Your task to perform on an android device: What's the weather going to be tomorrow? Image 0: 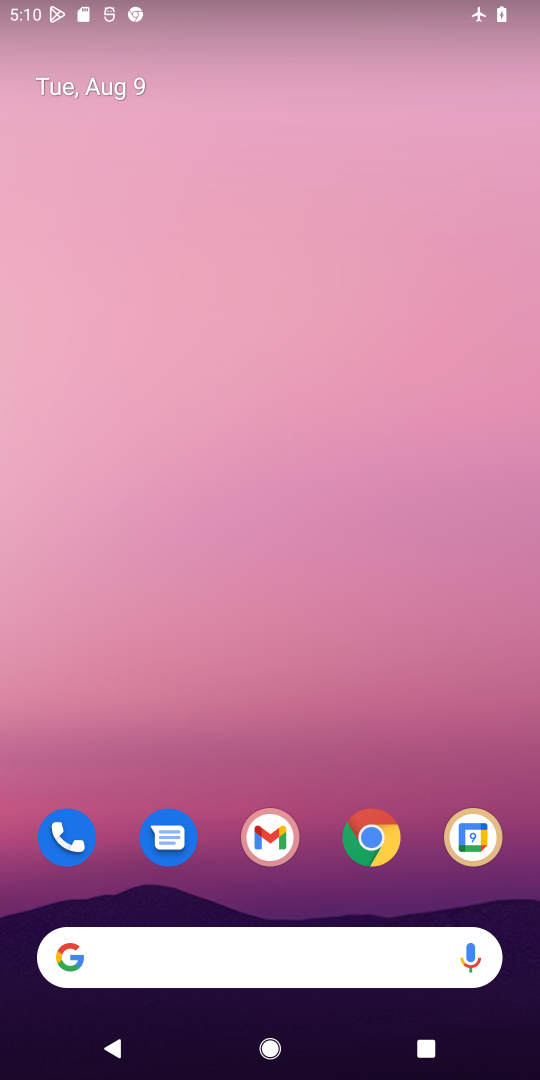
Step 0: drag from (254, 919) to (370, 292)
Your task to perform on an android device: What's the weather going to be tomorrow? Image 1: 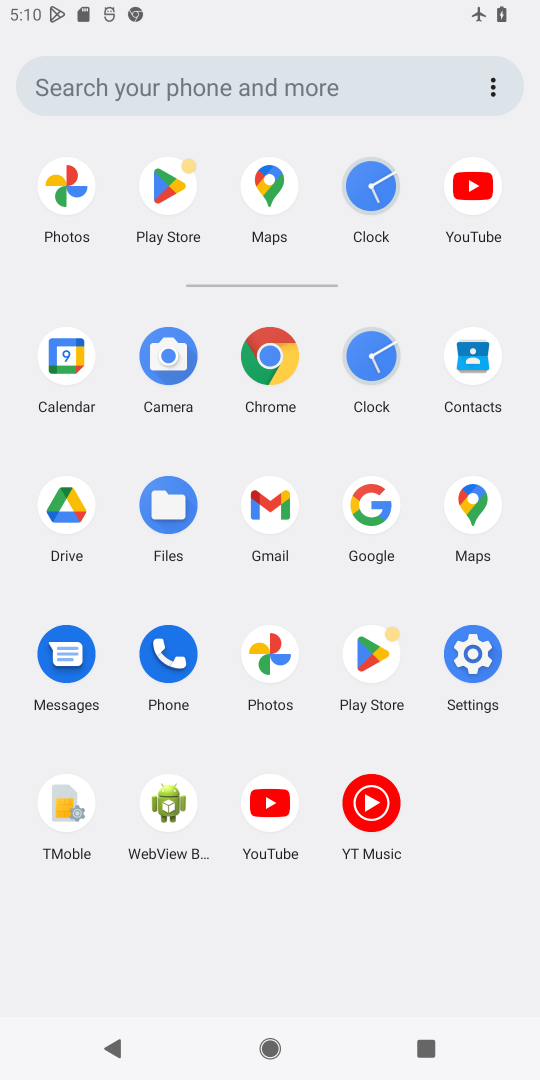
Step 1: click (254, 359)
Your task to perform on an android device: What's the weather going to be tomorrow? Image 2: 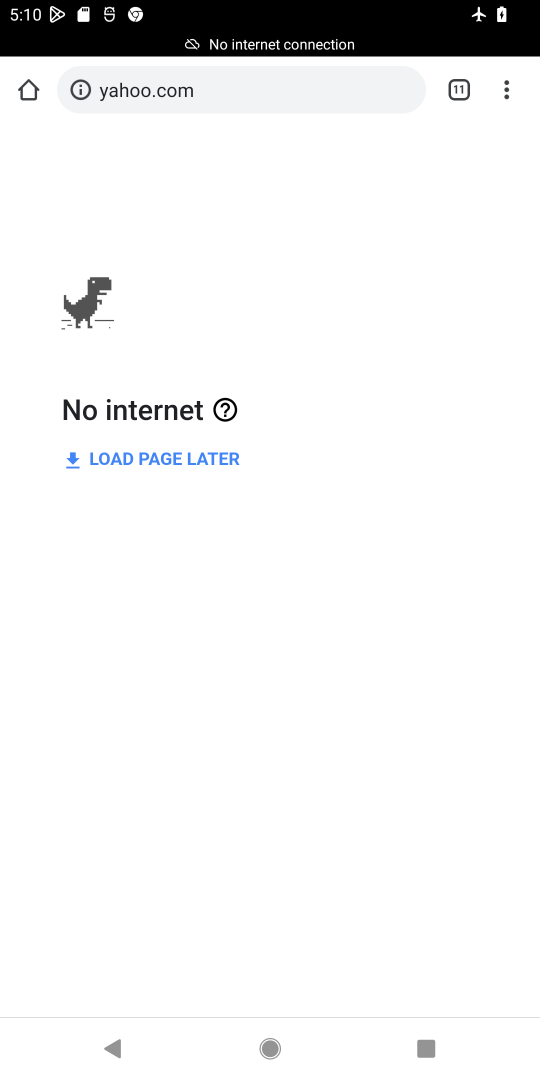
Step 2: click (521, 88)
Your task to perform on an android device: What's the weather going to be tomorrow? Image 3: 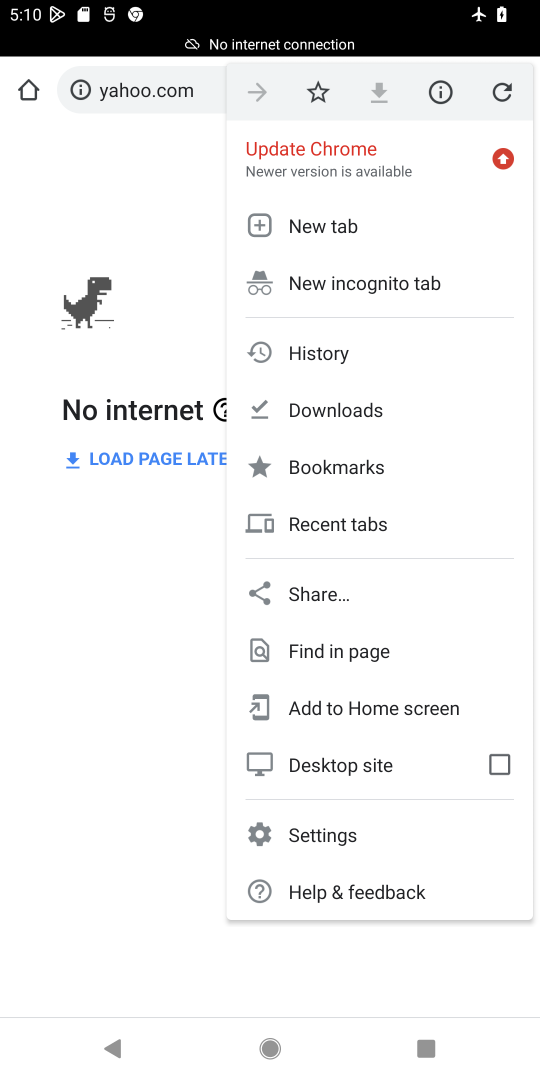
Step 3: click (277, 226)
Your task to perform on an android device: What's the weather going to be tomorrow? Image 4: 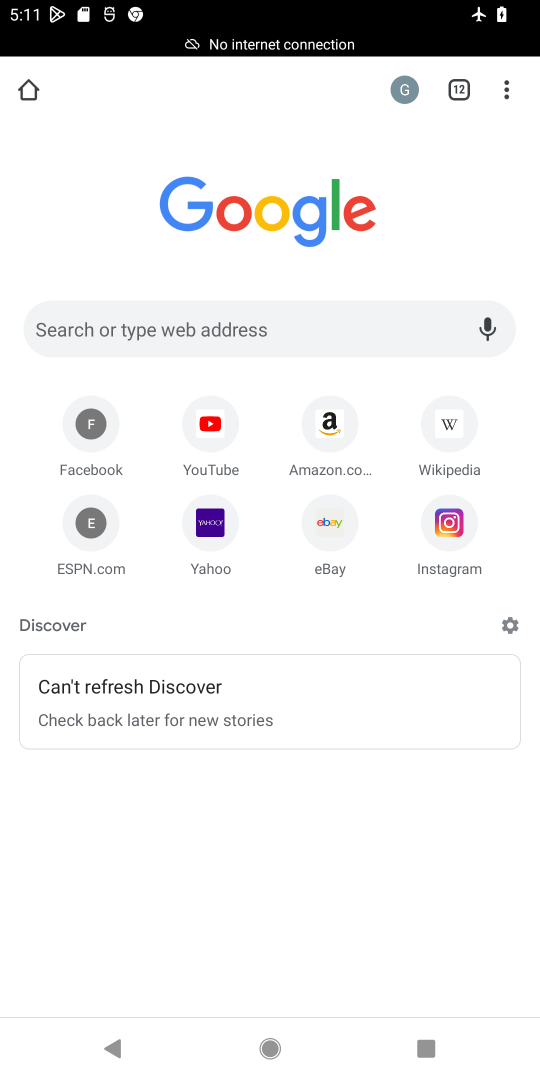
Step 4: click (270, 337)
Your task to perform on an android device: What's the weather going to be tomorrow? Image 5: 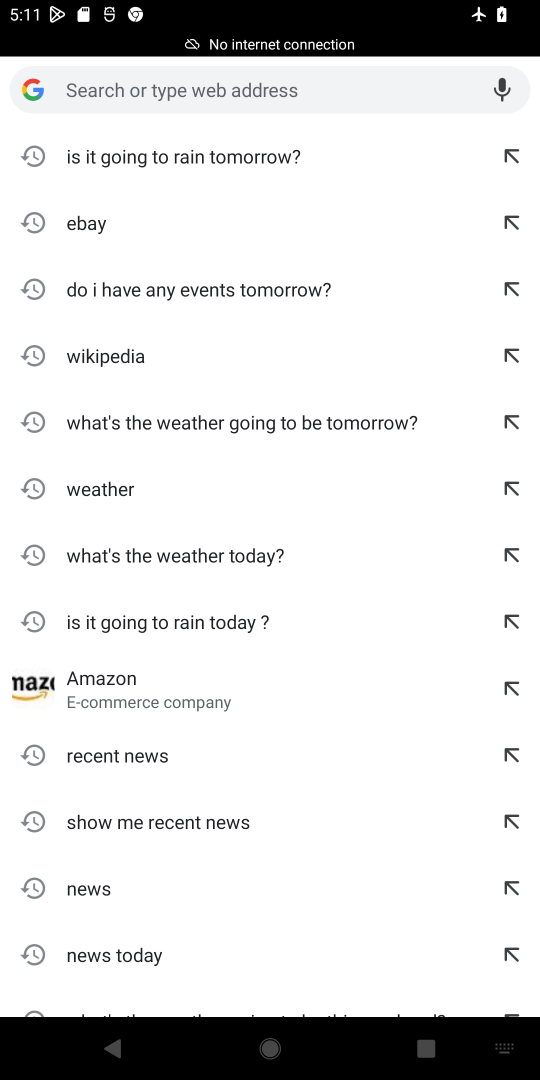
Step 5: type "What's the weather going to be tomorrow? "
Your task to perform on an android device: What's the weather going to be tomorrow? Image 6: 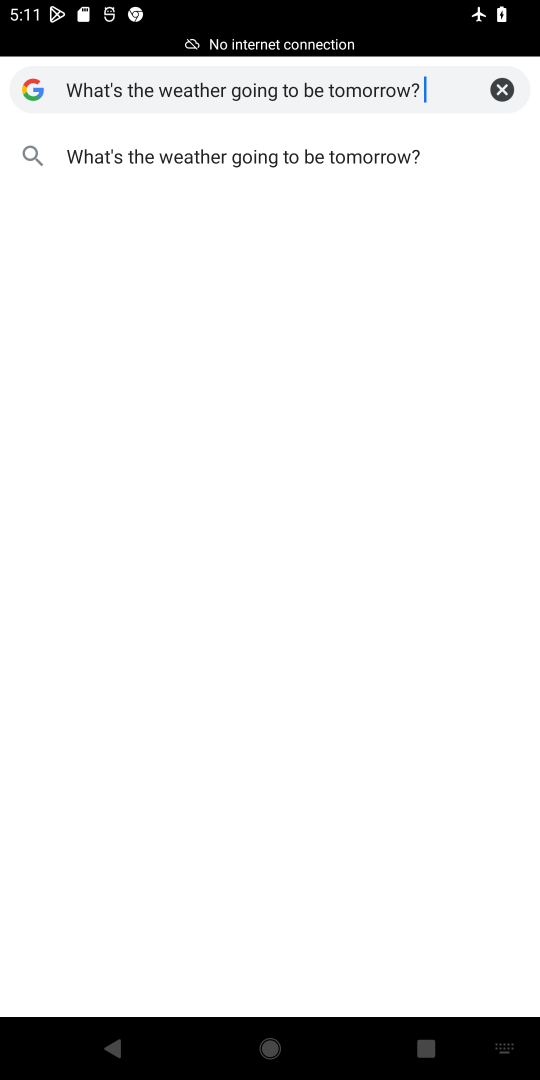
Step 6: click (265, 148)
Your task to perform on an android device: What's the weather going to be tomorrow? Image 7: 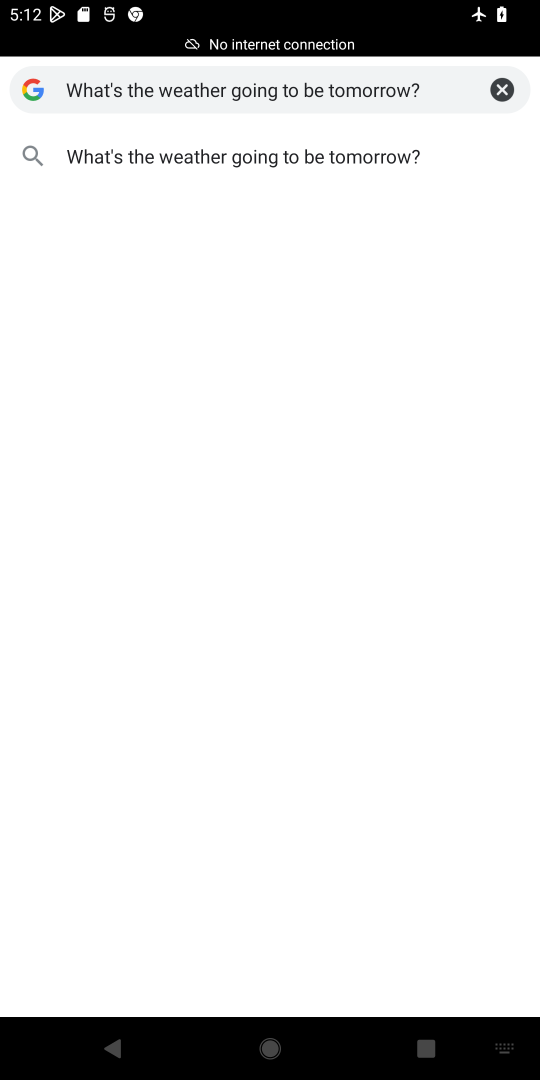
Step 7: click (274, 160)
Your task to perform on an android device: What's the weather going to be tomorrow? Image 8: 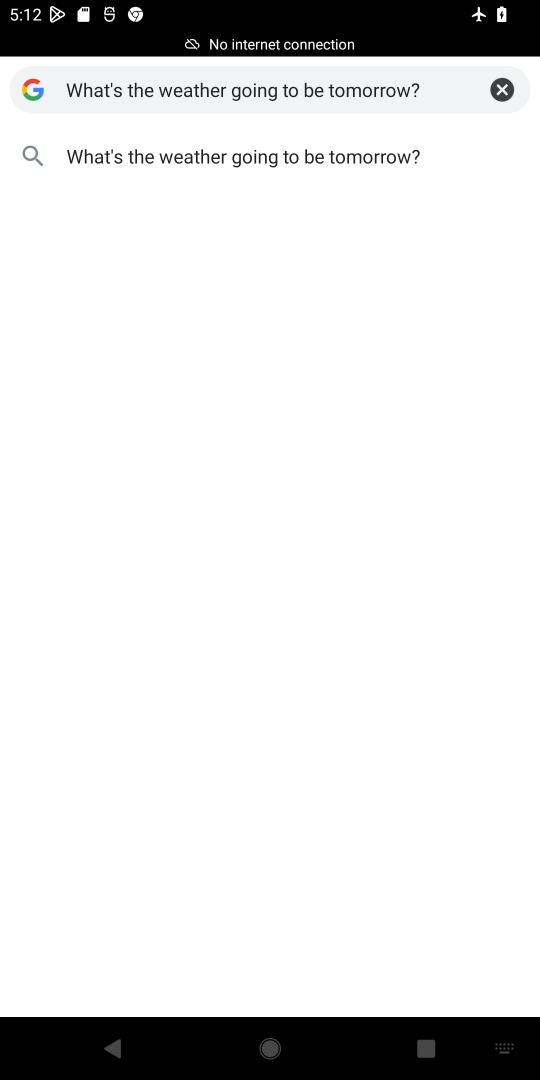
Step 8: task complete